Your task to perform on an android device: see sites visited before in the chrome app Image 0: 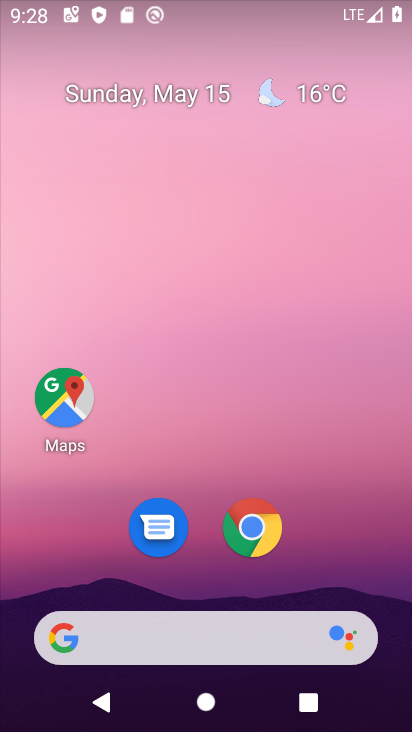
Step 0: click (262, 530)
Your task to perform on an android device: see sites visited before in the chrome app Image 1: 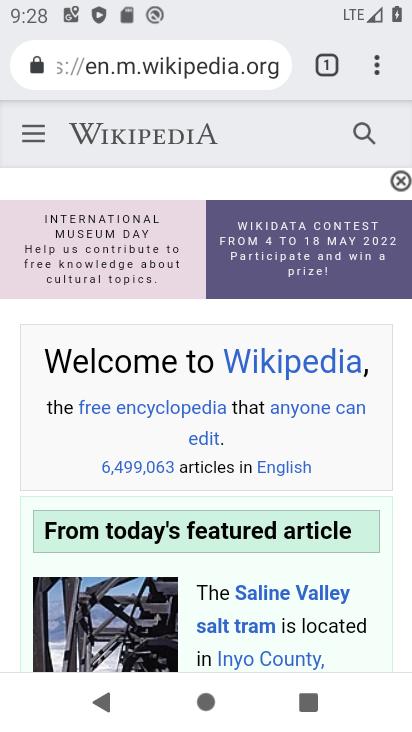
Step 1: click (379, 65)
Your task to perform on an android device: see sites visited before in the chrome app Image 2: 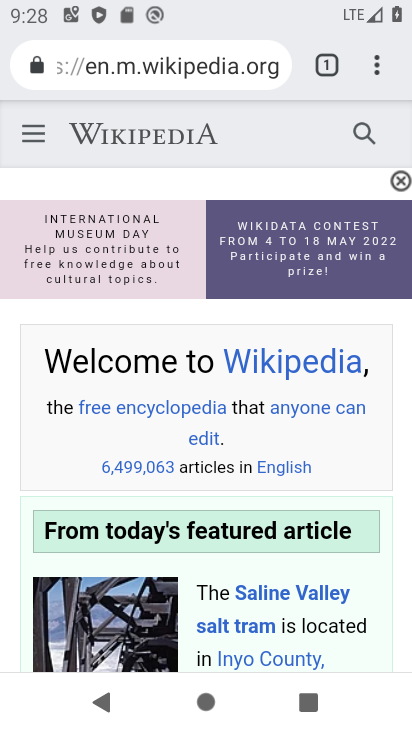
Step 2: click (375, 66)
Your task to perform on an android device: see sites visited before in the chrome app Image 3: 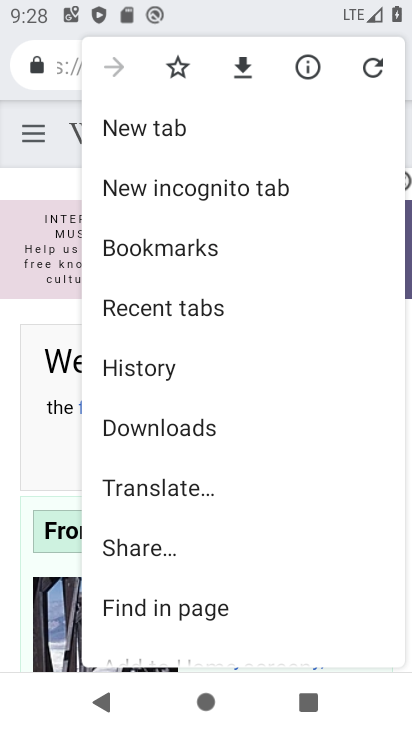
Step 3: drag from (243, 578) to (234, 253)
Your task to perform on an android device: see sites visited before in the chrome app Image 4: 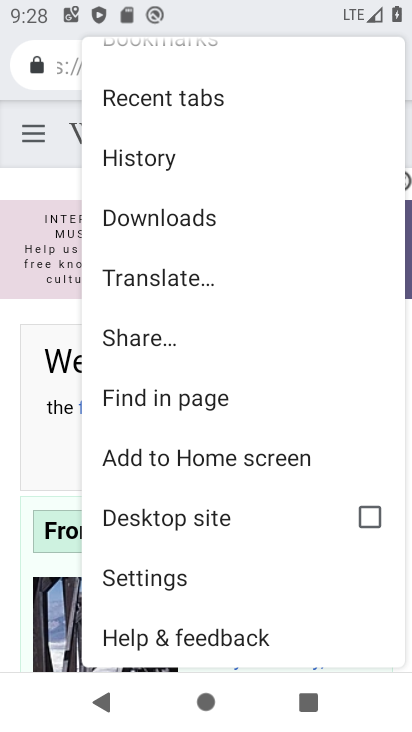
Step 4: click (144, 158)
Your task to perform on an android device: see sites visited before in the chrome app Image 5: 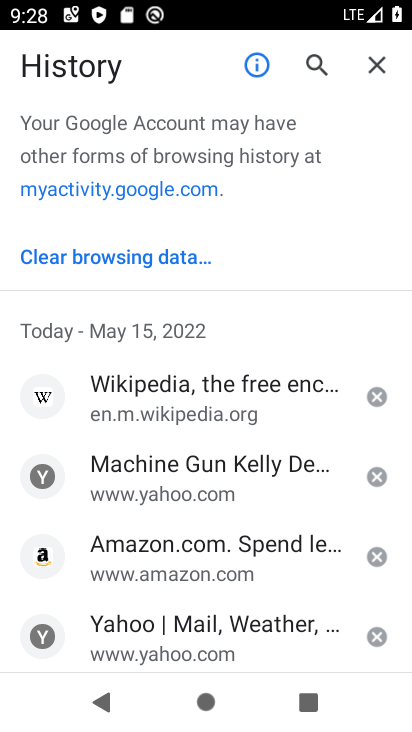
Step 5: task complete